Your task to perform on an android device: Go to Amazon Image 0: 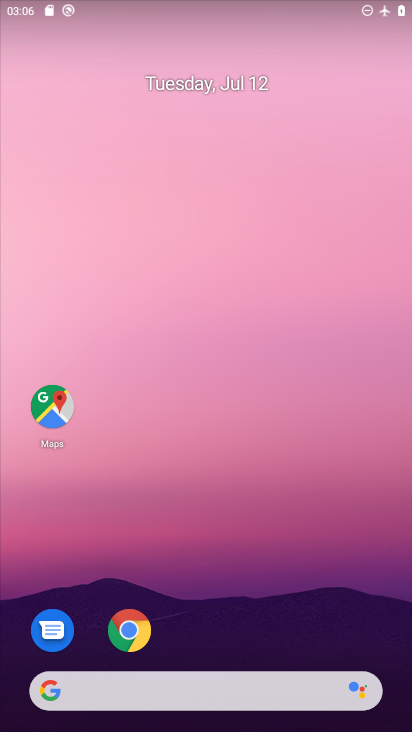
Step 0: click (130, 634)
Your task to perform on an android device: Go to Amazon Image 1: 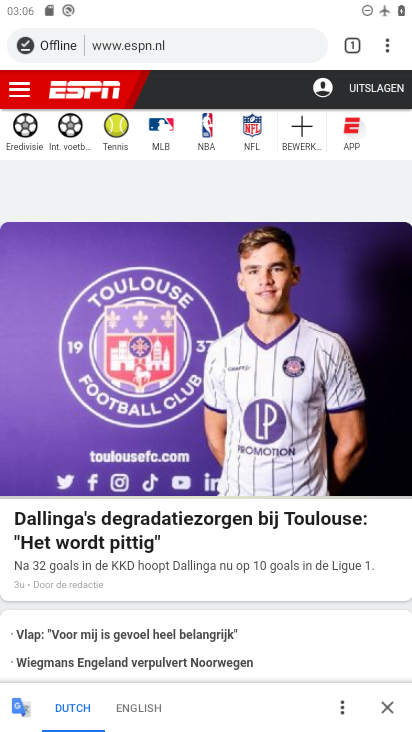
Step 1: click (214, 42)
Your task to perform on an android device: Go to Amazon Image 2: 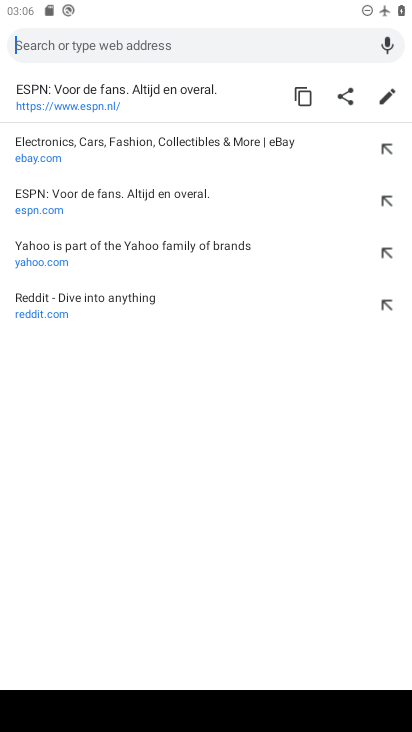
Step 2: type "Amazon"
Your task to perform on an android device: Go to Amazon Image 3: 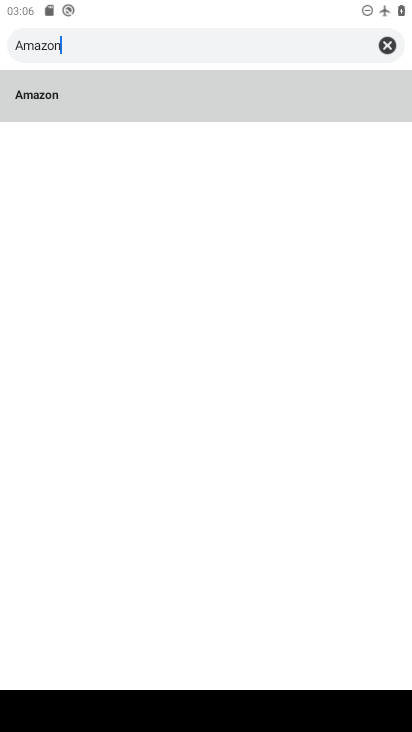
Step 3: click (43, 93)
Your task to perform on an android device: Go to Amazon Image 4: 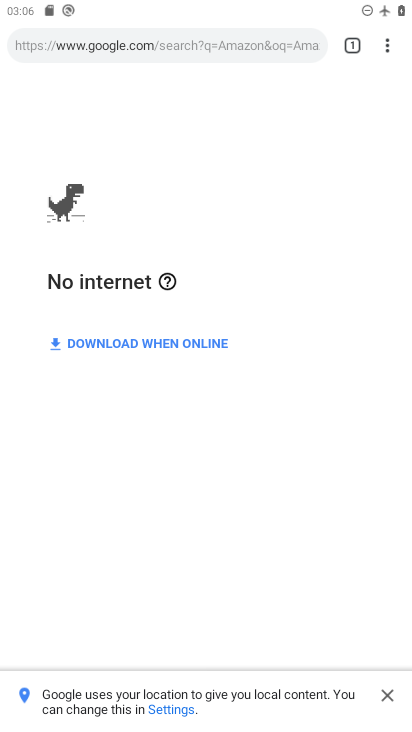
Step 4: task complete